Your task to perform on an android device: Search for the best pizza restaurants on Maps Image 0: 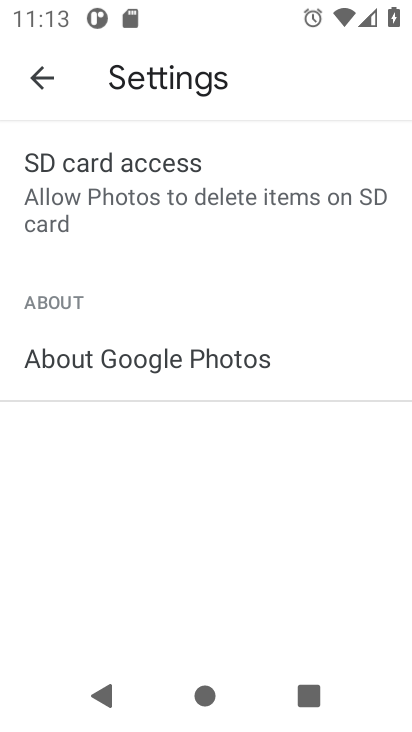
Step 0: press home button
Your task to perform on an android device: Search for the best pizza restaurants on Maps Image 1: 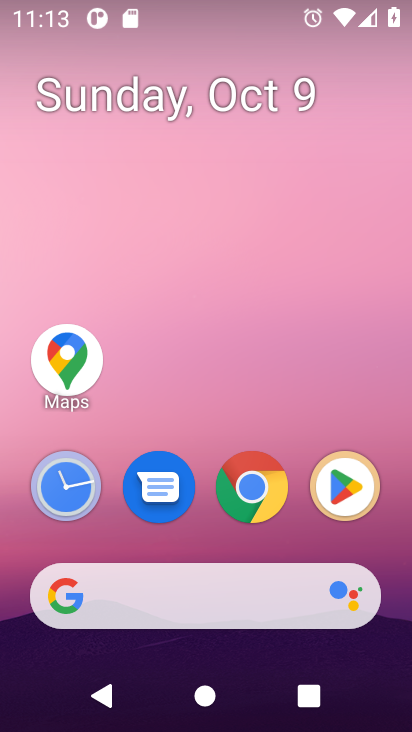
Step 1: drag from (230, 561) to (271, 4)
Your task to perform on an android device: Search for the best pizza restaurants on Maps Image 2: 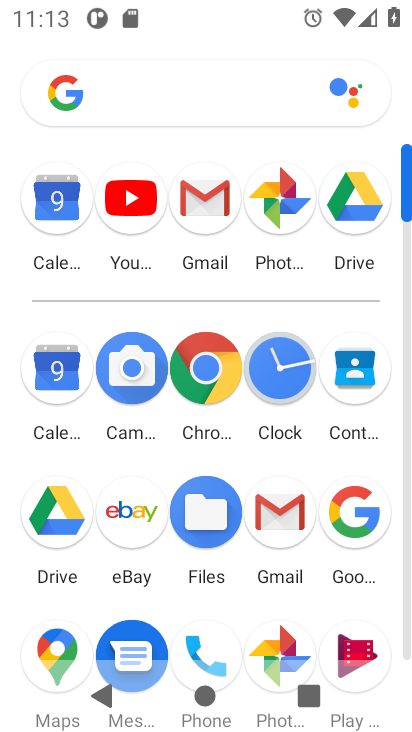
Step 2: click (51, 642)
Your task to perform on an android device: Search for the best pizza restaurants on Maps Image 3: 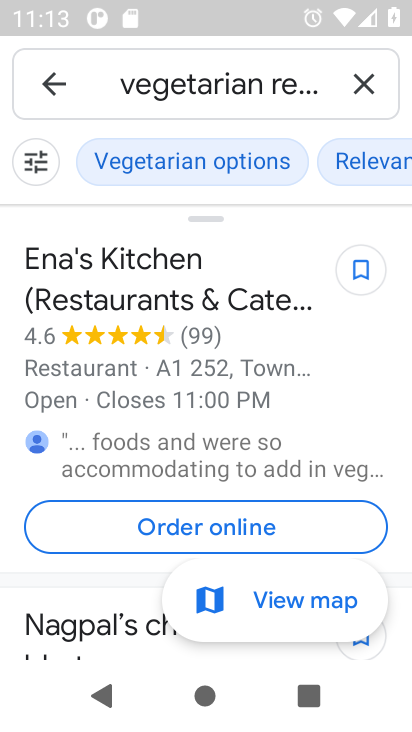
Step 3: click (360, 81)
Your task to perform on an android device: Search for the best pizza restaurants on Maps Image 4: 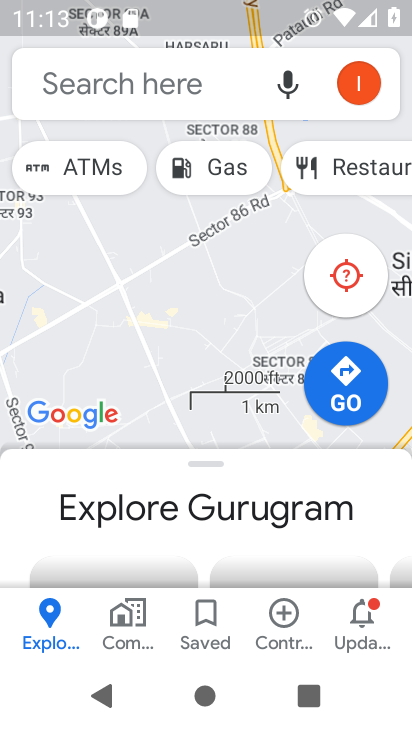
Step 4: click (141, 84)
Your task to perform on an android device: Search for the best pizza restaurants on Maps Image 5: 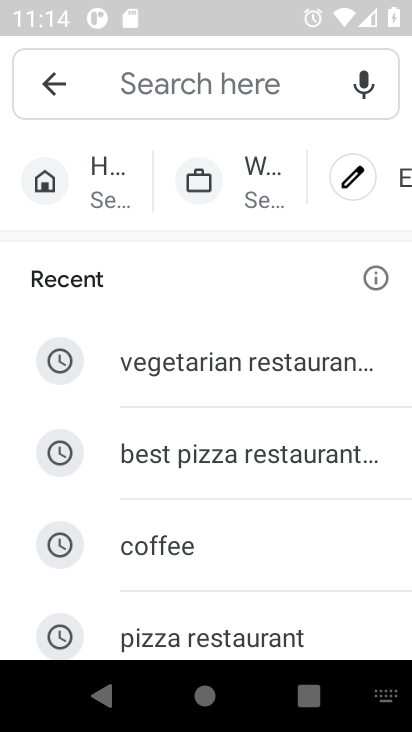
Step 5: type "best pizza restaurants "
Your task to perform on an android device: Search for the best pizza restaurants on Maps Image 6: 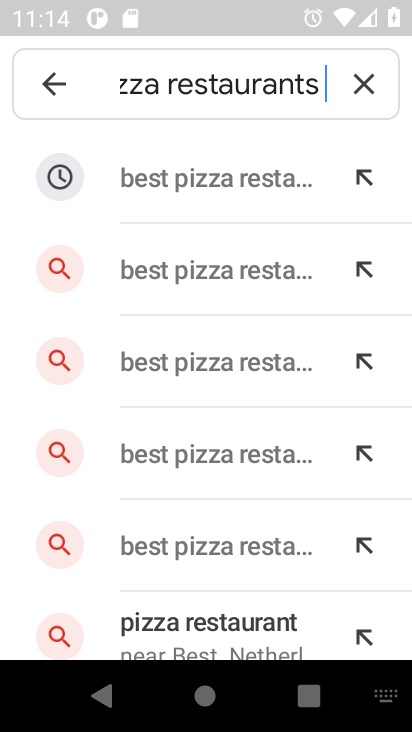
Step 6: type ""
Your task to perform on an android device: Search for the best pizza restaurants on Maps Image 7: 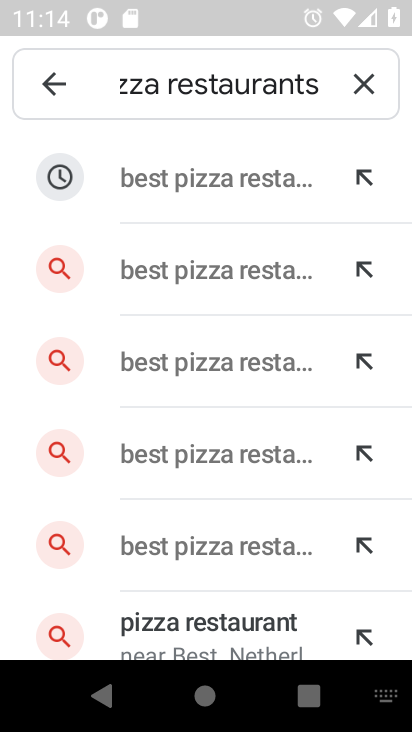
Step 7: click (159, 186)
Your task to perform on an android device: Search for the best pizza restaurants on Maps Image 8: 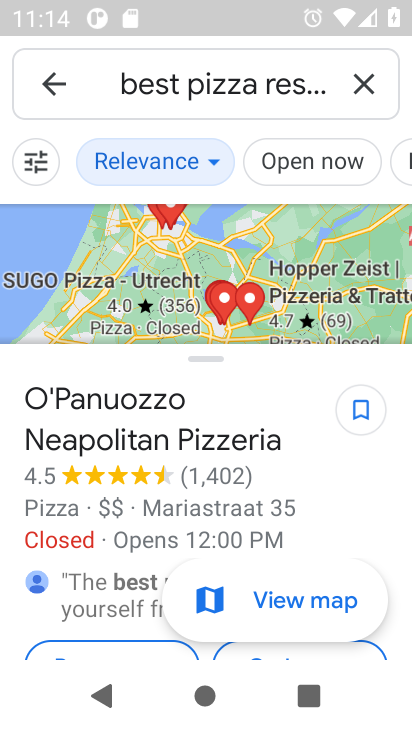
Step 8: task complete